Your task to perform on an android device: What's on my calendar tomorrow? Image 0: 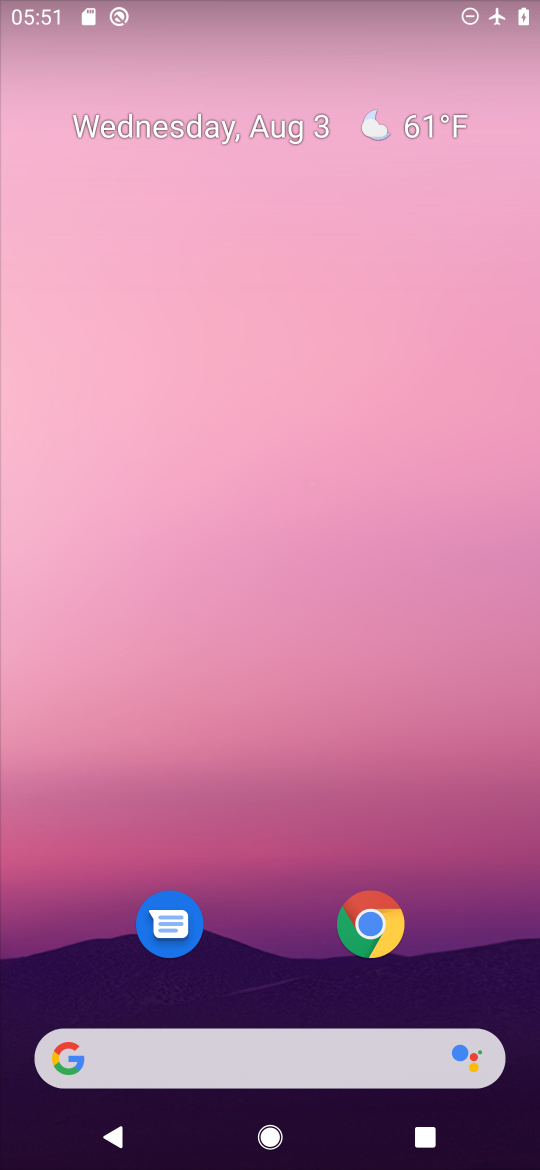
Step 0: drag from (290, 816) to (290, 395)
Your task to perform on an android device: What's on my calendar tomorrow? Image 1: 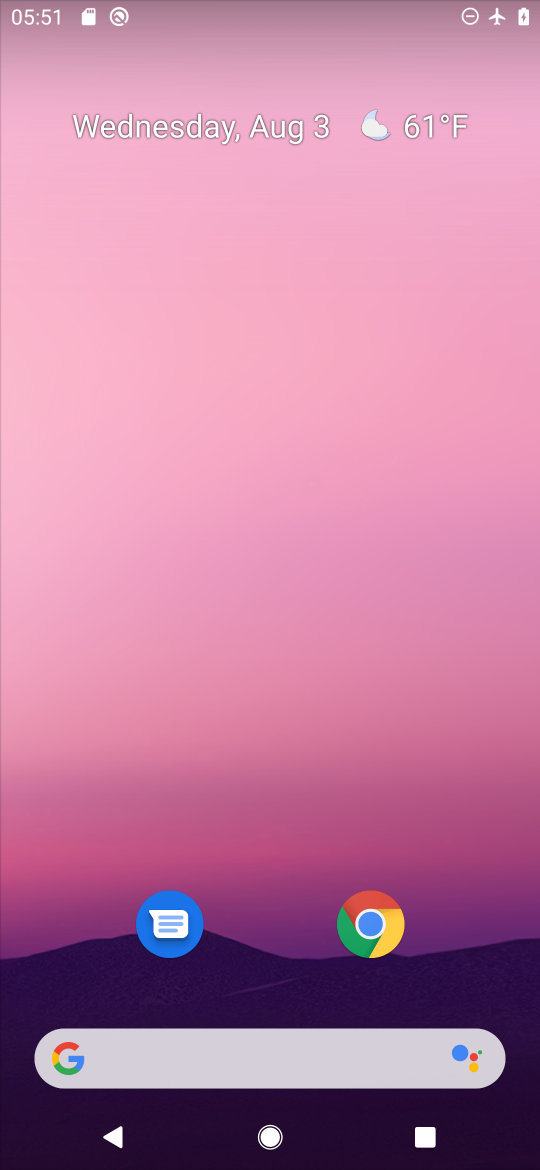
Step 1: drag from (284, 878) to (284, 309)
Your task to perform on an android device: What's on my calendar tomorrow? Image 2: 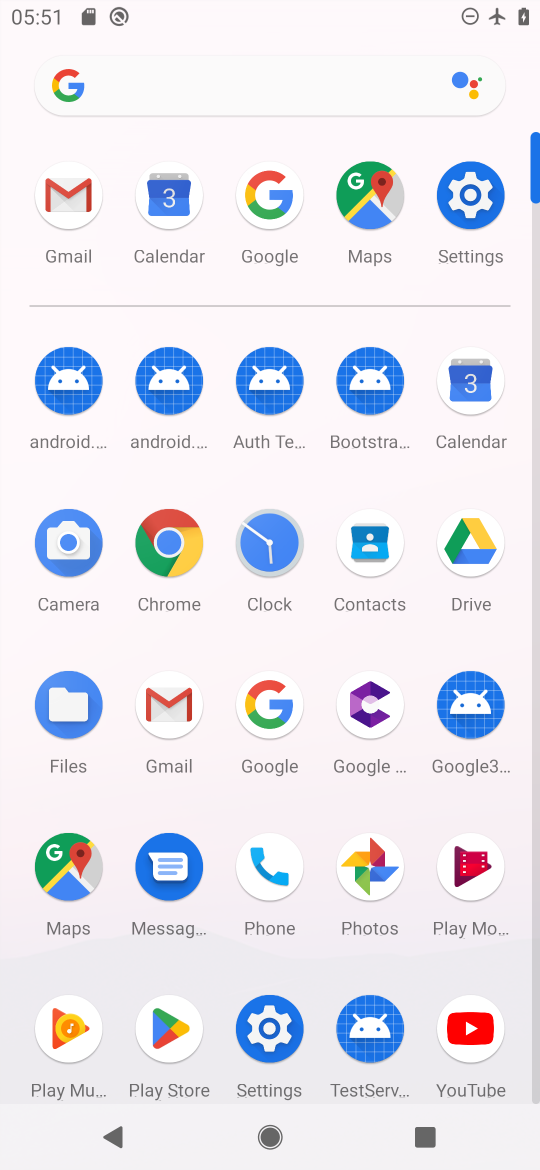
Step 2: click (467, 407)
Your task to perform on an android device: What's on my calendar tomorrow? Image 3: 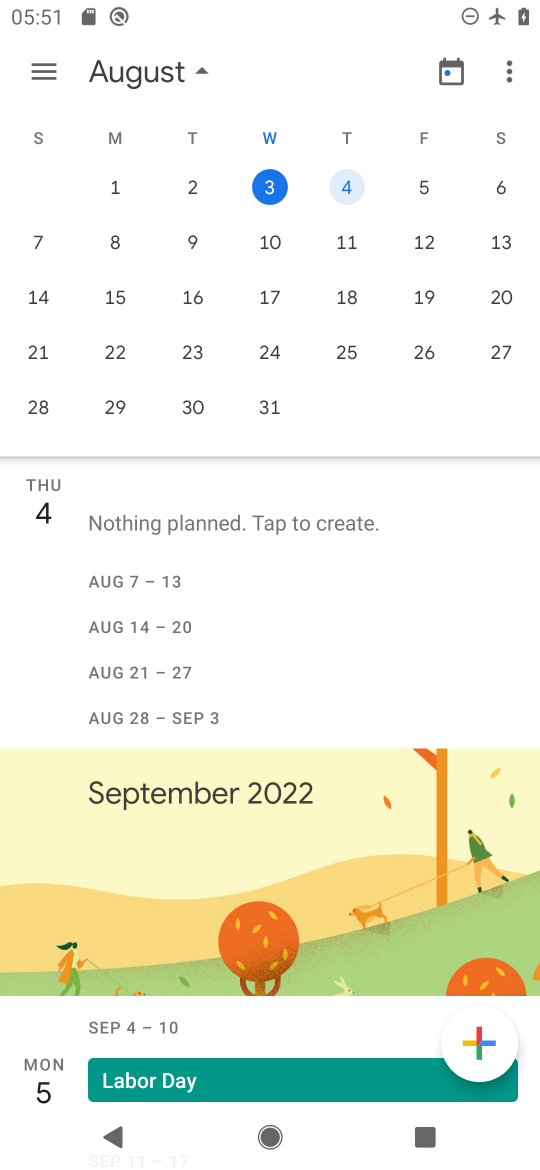
Step 3: click (351, 203)
Your task to perform on an android device: What's on my calendar tomorrow? Image 4: 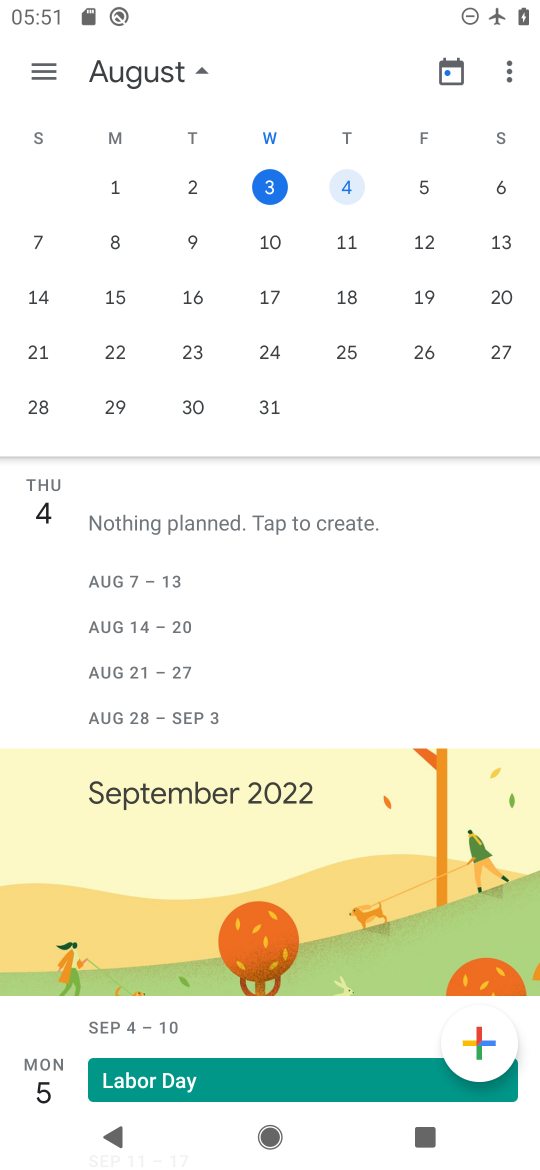
Step 4: click (332, 207)
Your task to perform on an android device: What's on my calendar tomorrow? Image 5: 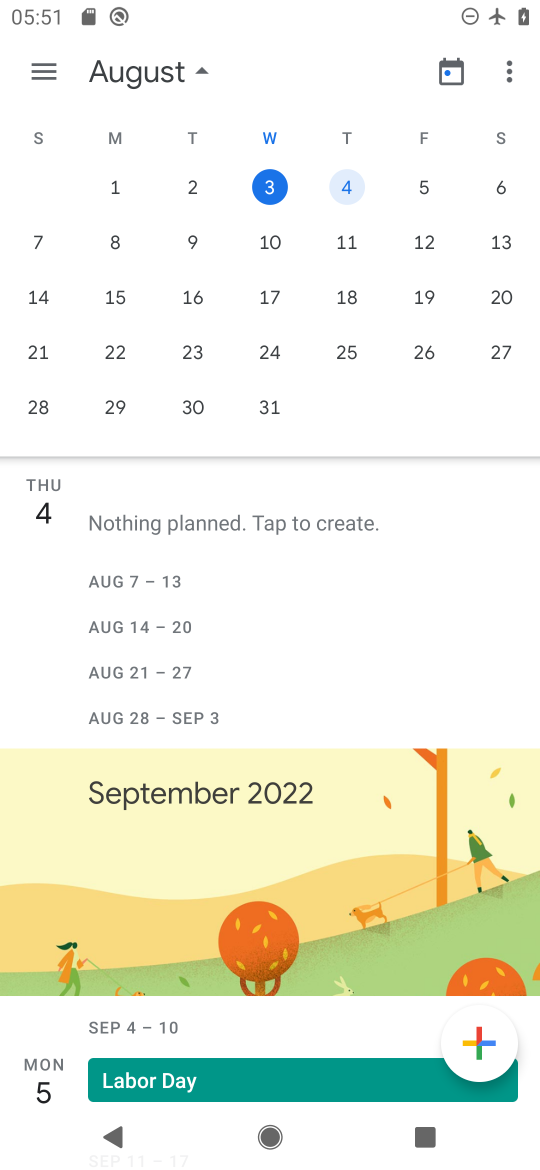
Step 5: click (332, 207)
Your task to perform on an android device: What's on my calendar tomorrow? Image 6: 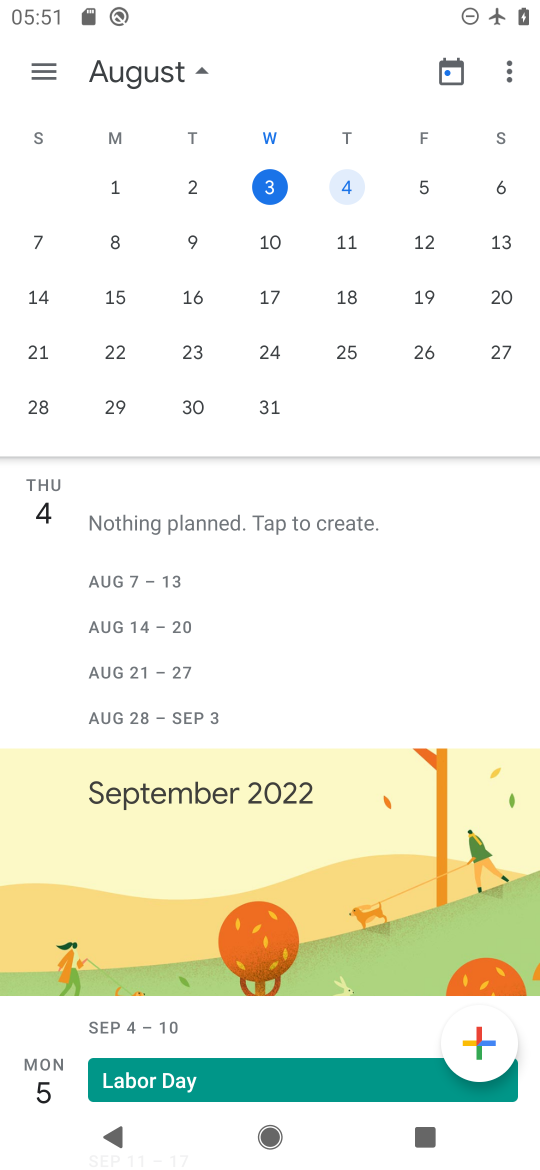
Step 6: task complete